Your task to perform on an android device: What's the weather? Image 0: 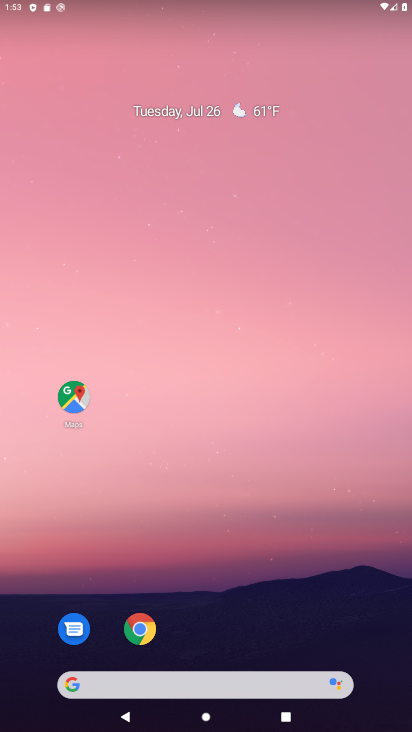
Step 0: click (231, 680)
Your task to perform on an android device: What's the weather? Image 1: 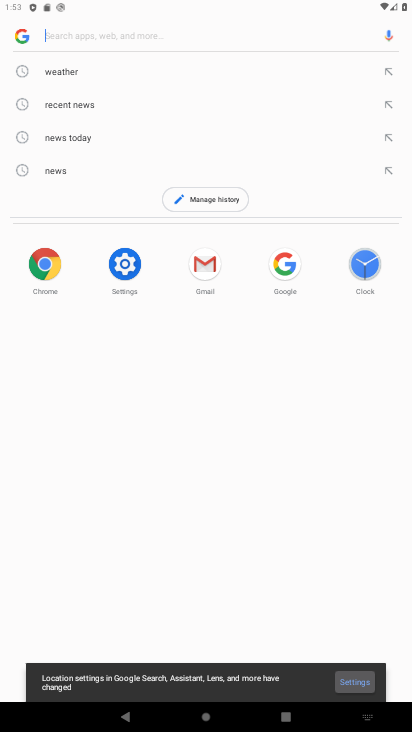
Step 1: click (64, 71)
Your task to perform on an android device: What's the weather? Image 2: 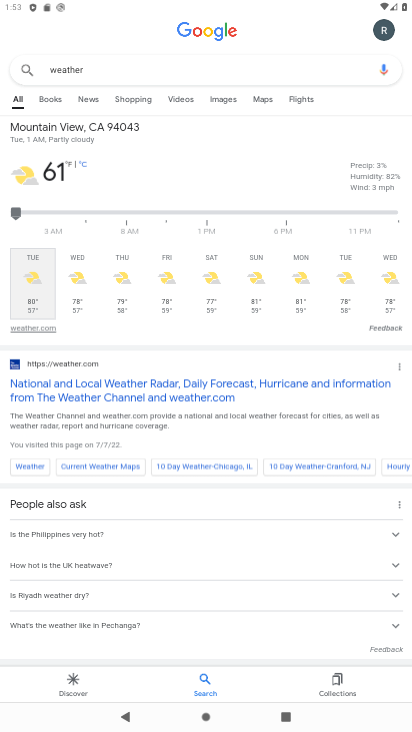
Step 2: task complete